Your task to perform on an android device: Go to settings Image 0: 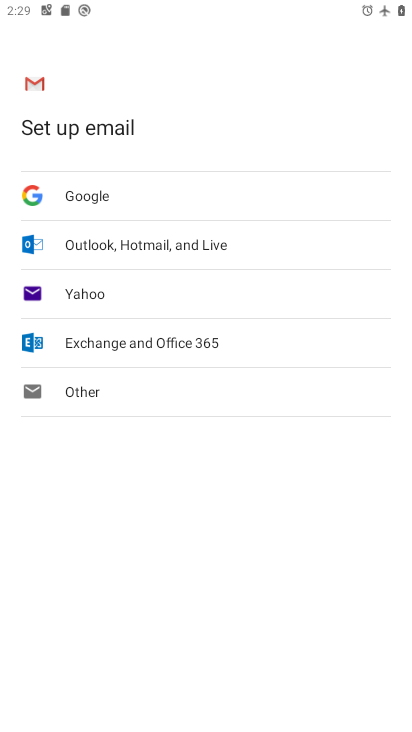
Step 0: press home button
Your task to perform on an android device: Go to settings Image 1: 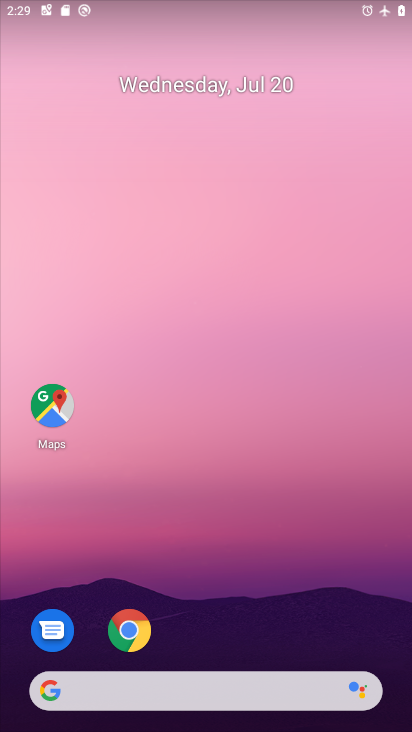
Step 1: drag from (267, 674) to (324, 141)
Your task to perform on an android device: Go to settings Image 2: 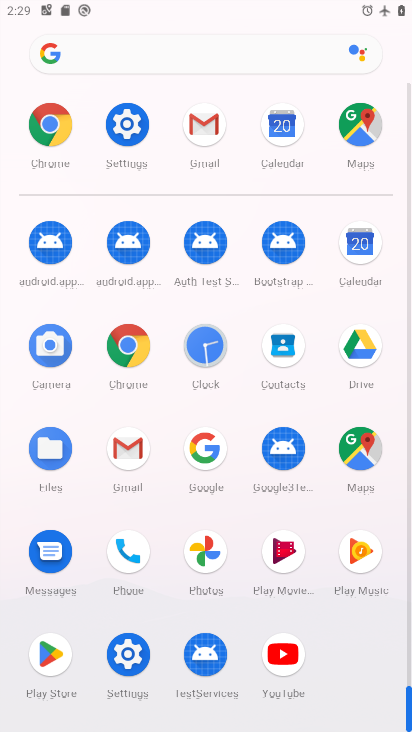
Step 2: click (124, 143)
Your task to perform on an android device: Go to settings Image 3: 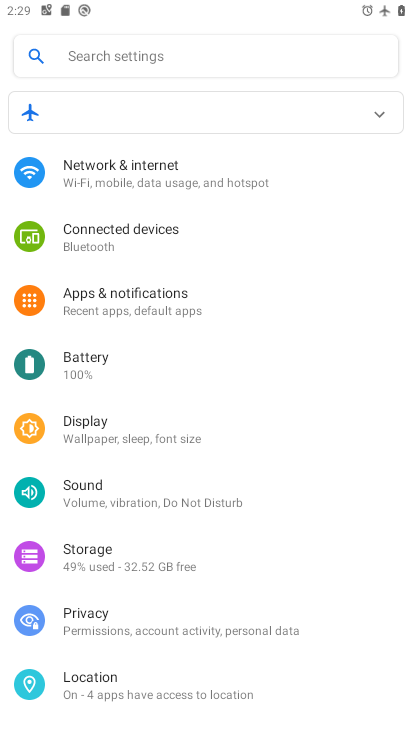
Step 3: task complete